Your task to perform on an android device: open app "Cash App" (install if not already installed) and enter user name: "submodules@gmail.com" and password: "heavenly" Image 0: 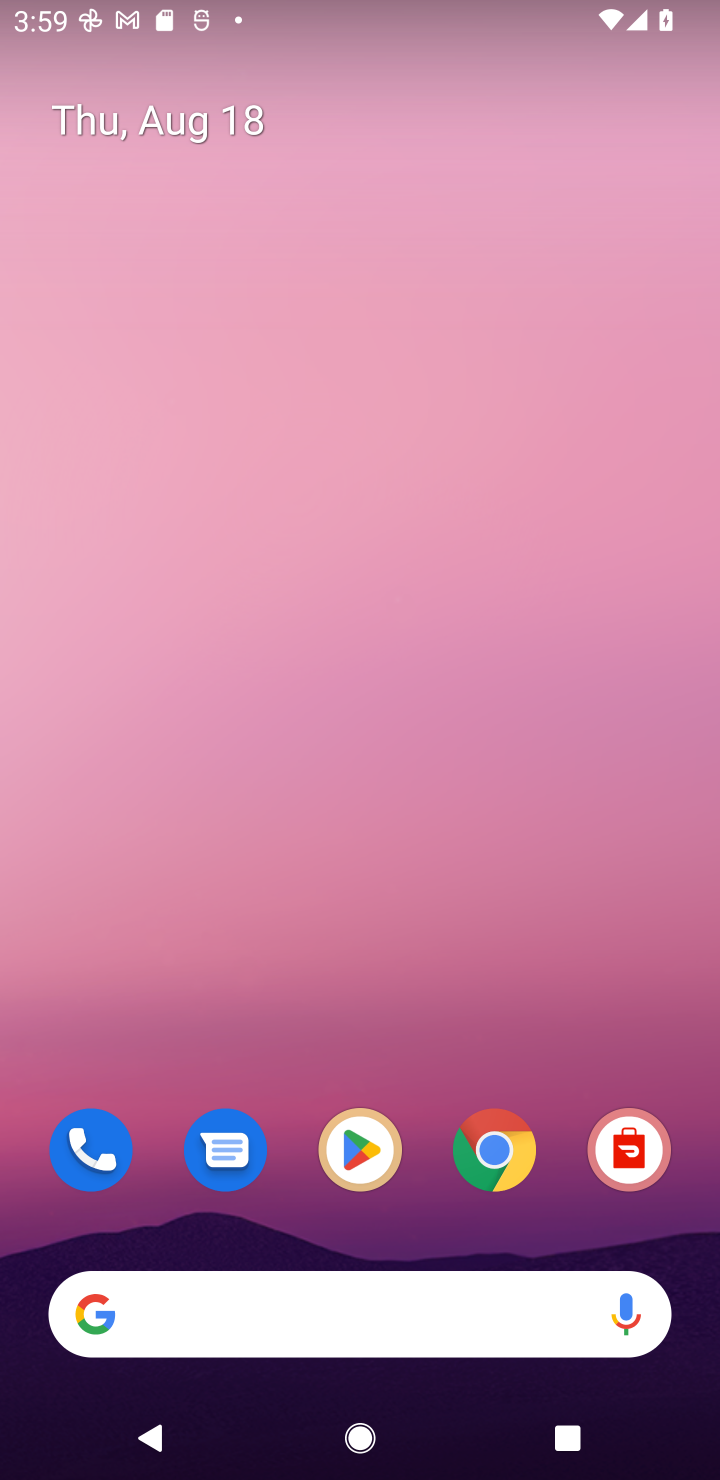
Step 0: click (365, 1147)
Your task to perform on an android device: open app "Cash App" (install if not already installed) and enter user name: "submodules@gmail.com" and password: "heavenly" Image 1: 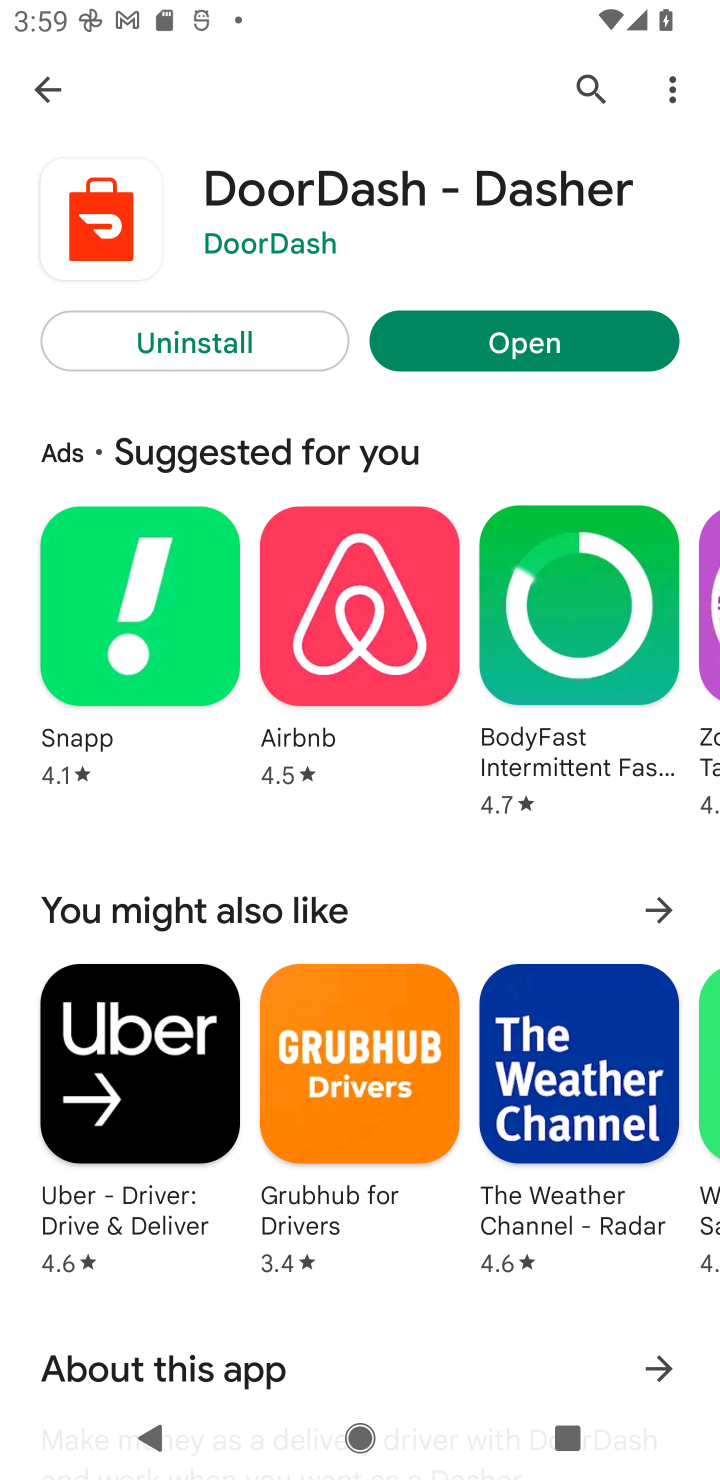
Step 1: click (584, 83)
Your task to perform on an android device: open app "Cash App" (install if not already installed) and enter user name: "submodules@gmail.com" and password: "heavenly" Image 2: 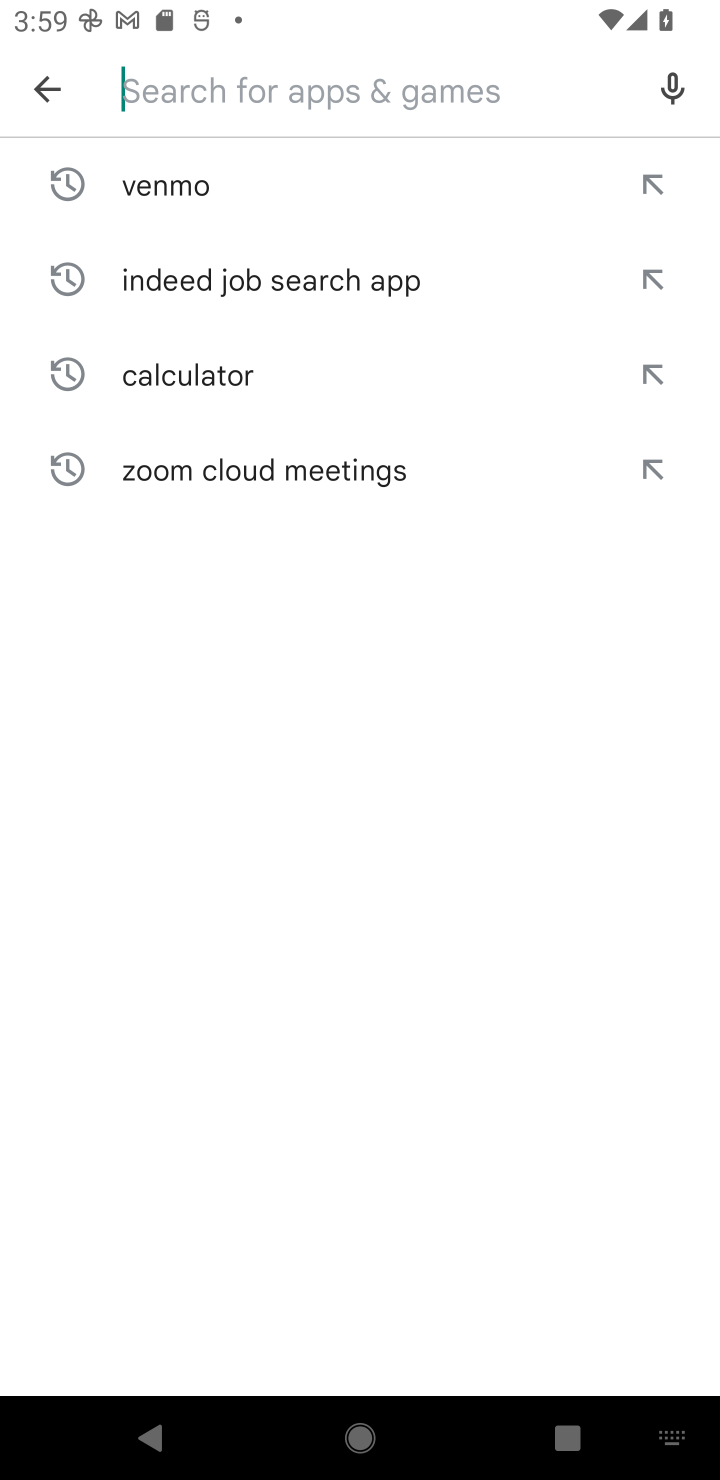
Step 2: type "Cash App"
Your task to perform on an android device: open app "Cash App" (install if not already installed) and enter user name: "submodules@gmail.com" and password: "heavenly" Image 3: 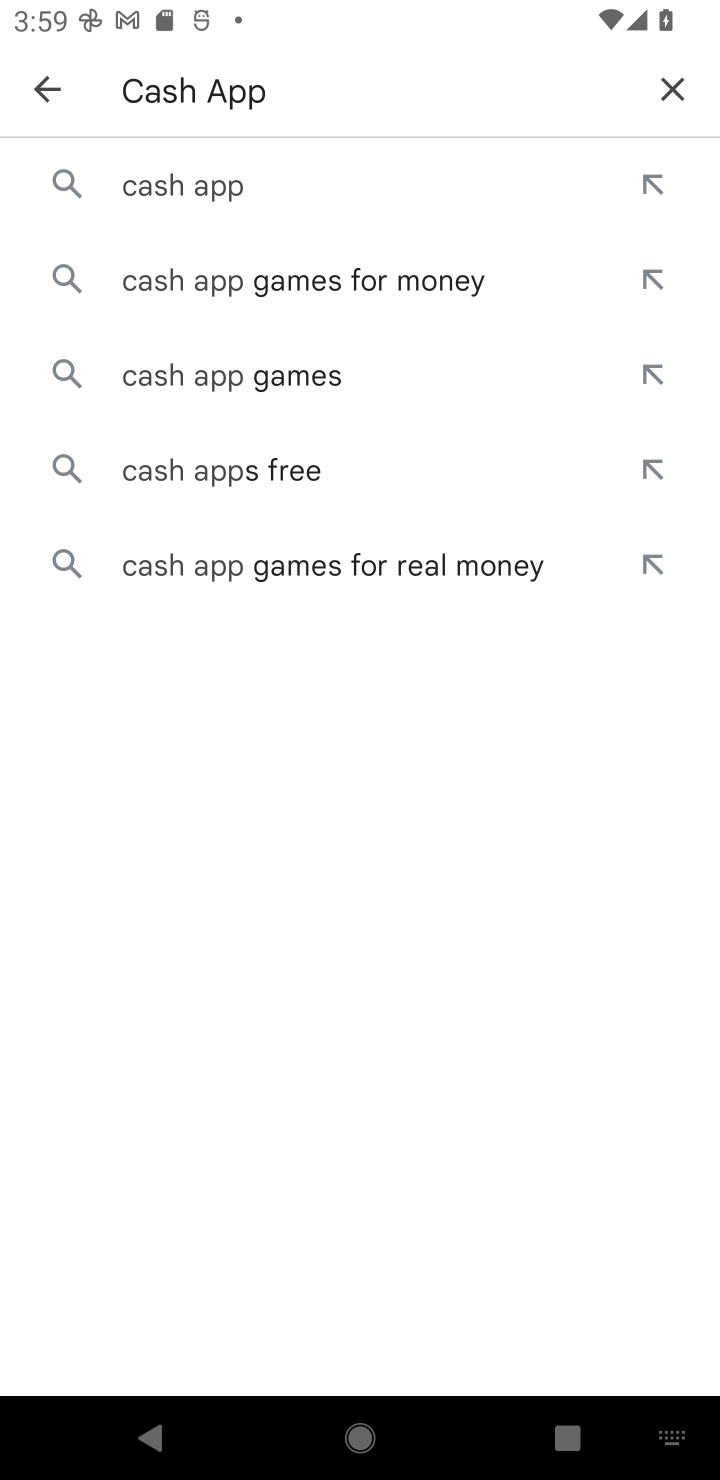
Step 3: click (166, 170)
Your task to perform on an android device: open app "Cash App" (install if not already installed) and enter user name: "submodules@gmail.com" and password: "heavenly" Image 4: 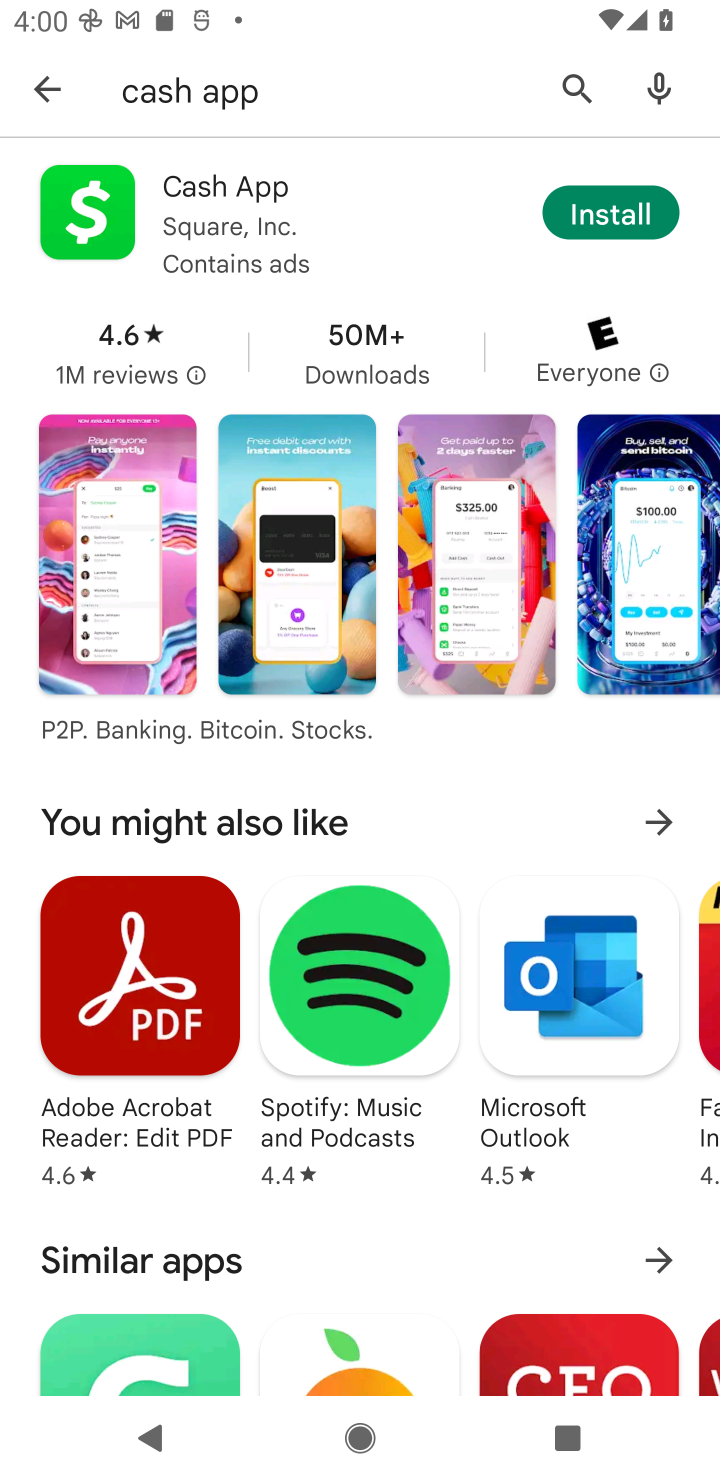
Step 4: click (613, 208)
Your task to perform on an android device: open app "Cash App" (install if not already installed) and enter user name: "submodules@gmail.com" and password: "heavenly" Image 5: 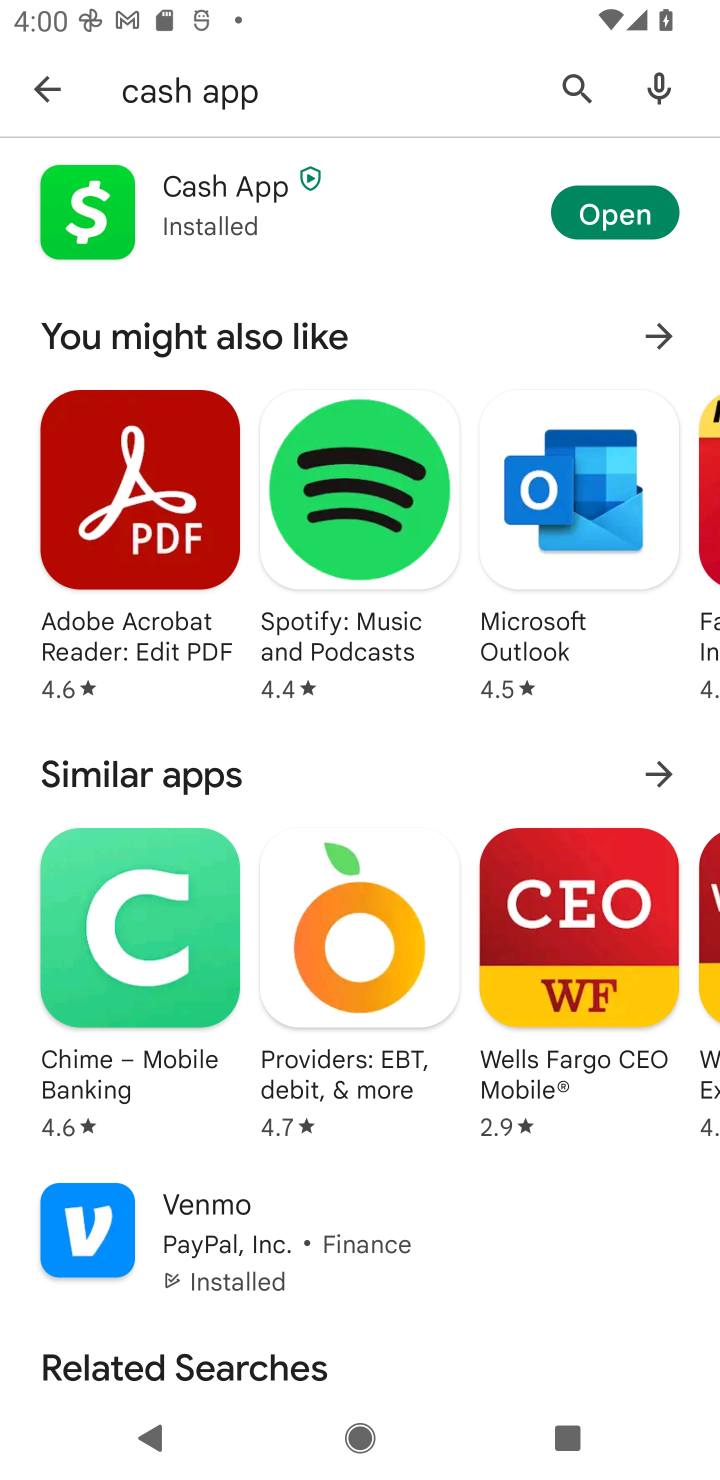
Step 5: click (612, 216)
Your task to perform on an android device: open app "Cash App" (install if not already installed) and enter user name: "submodules@gmail.com" and password: "heavenly" Image 6: 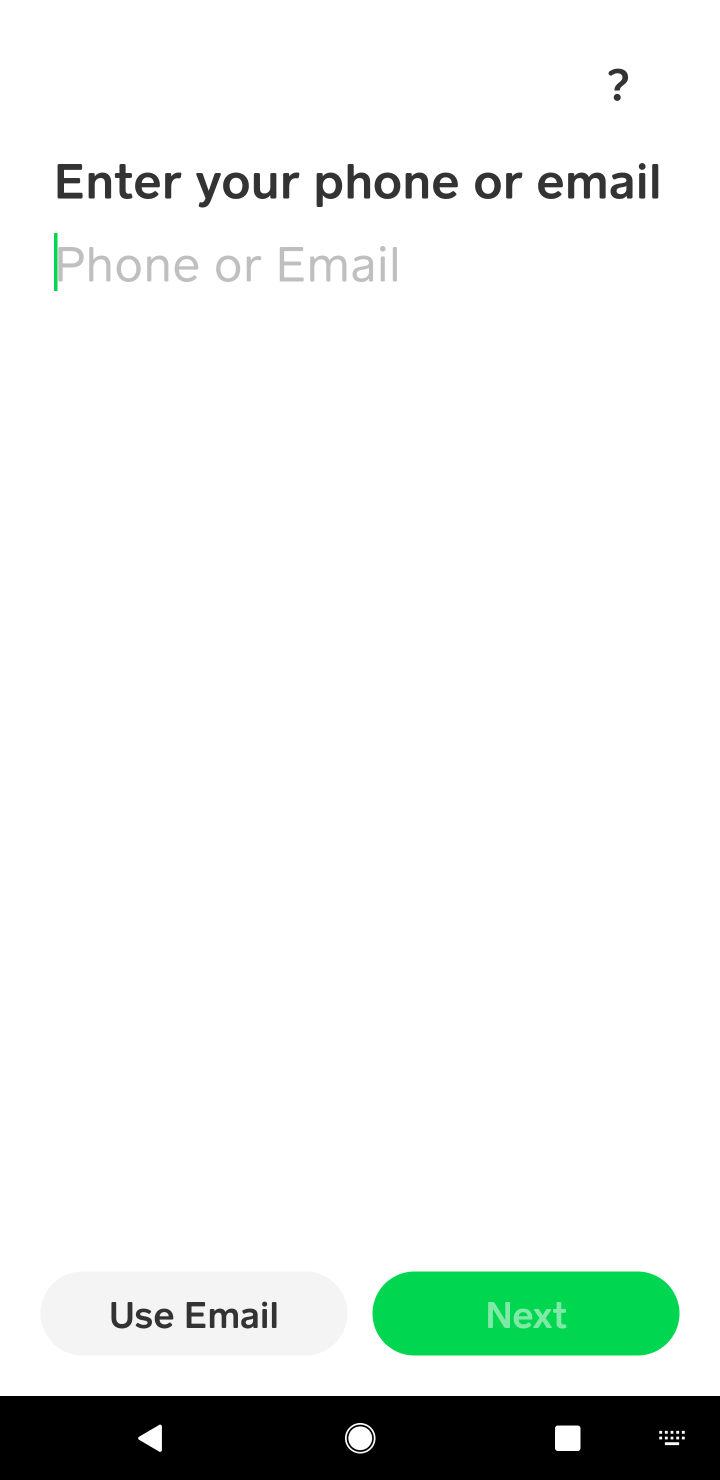
Step 6: type "submodules@gmail.com"
Your task to perform on an android device: open app "Cash App" (install if not already installed) and enter user name: "submodules@gmail.com" and password: "heavenly" Image 7: 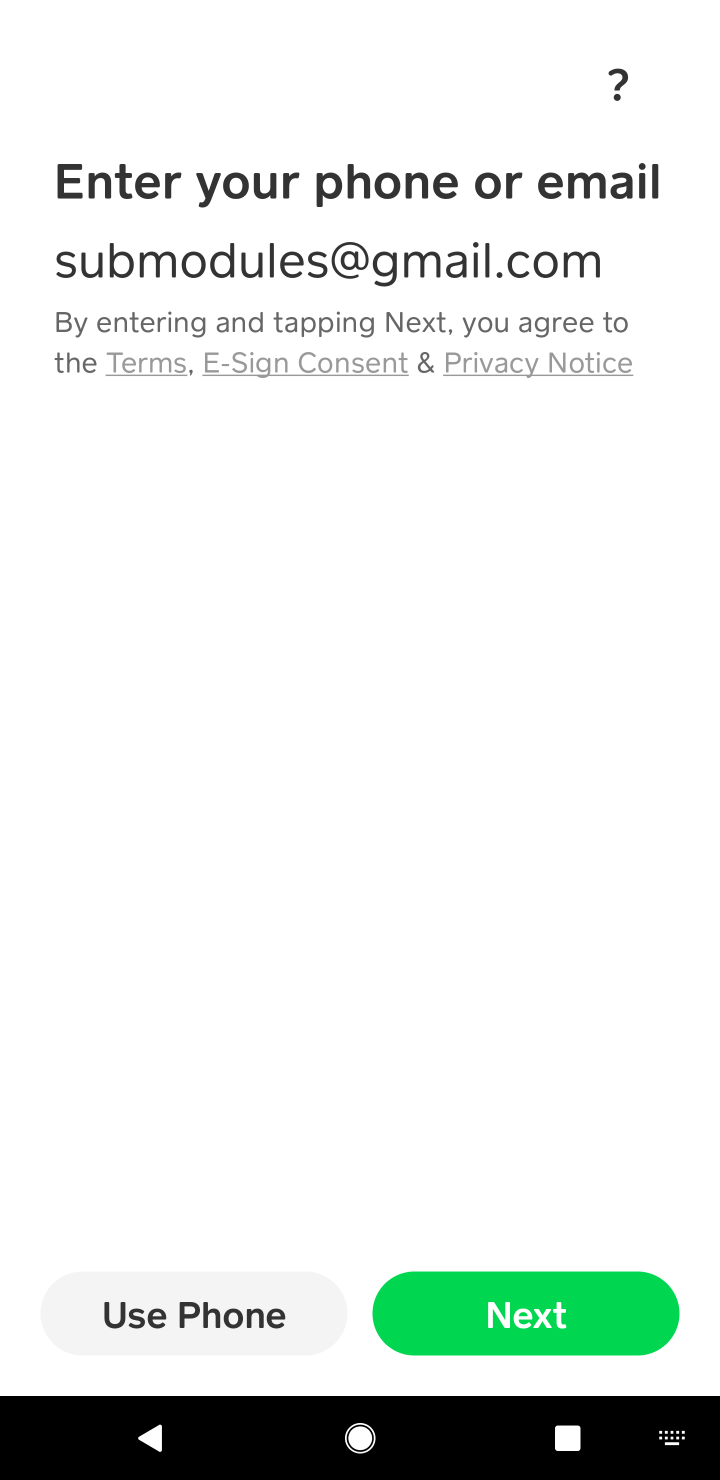
Step 7: click (530, 1313)
Your task to perform on an android device: open app "Cash App" (install if not already installed) and enter user name: "submodules@gmail.com" and password: "heavenly" Image 8: 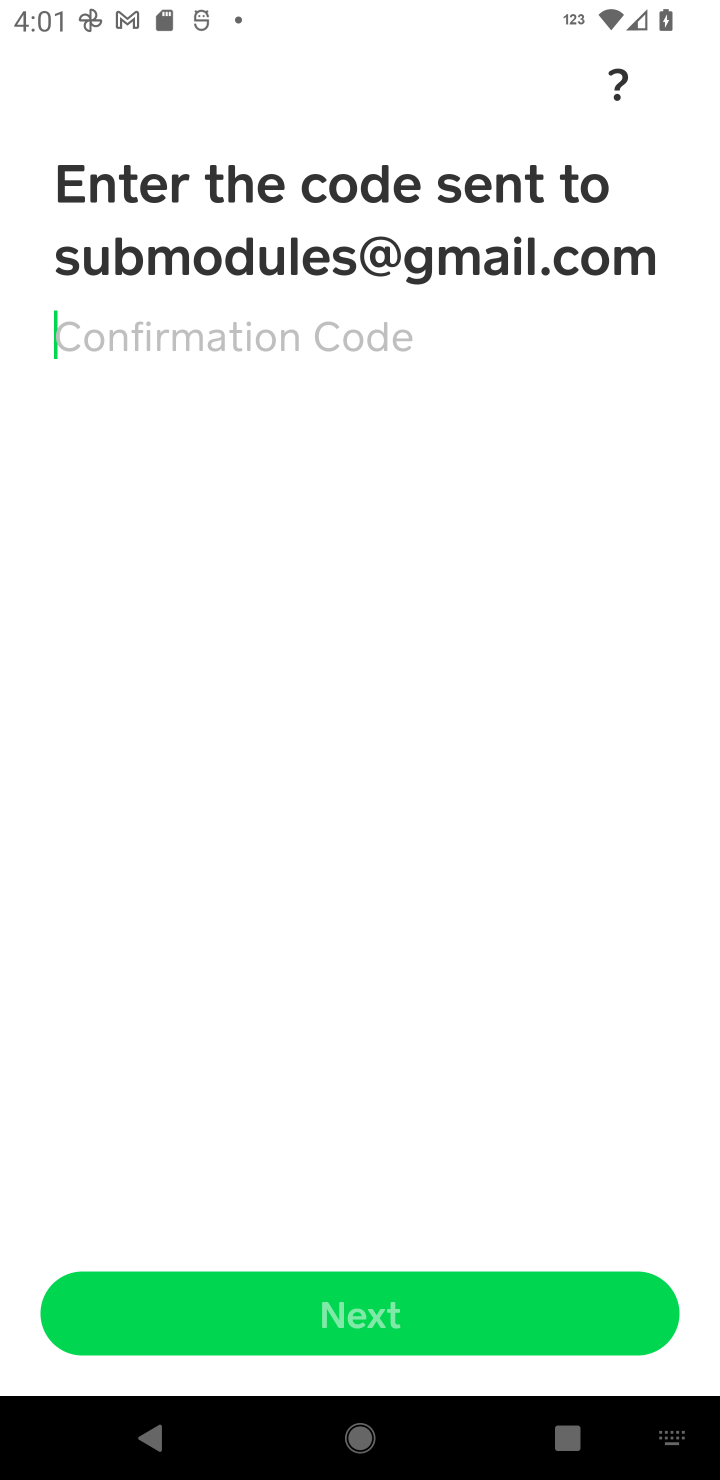
Step 8: type "heavenly"
Your task to perform on an android device: open app "Cash App" (install if not already installed) and enter user name: "submodules@gmail.com" and password: "heavenly" Image 9: 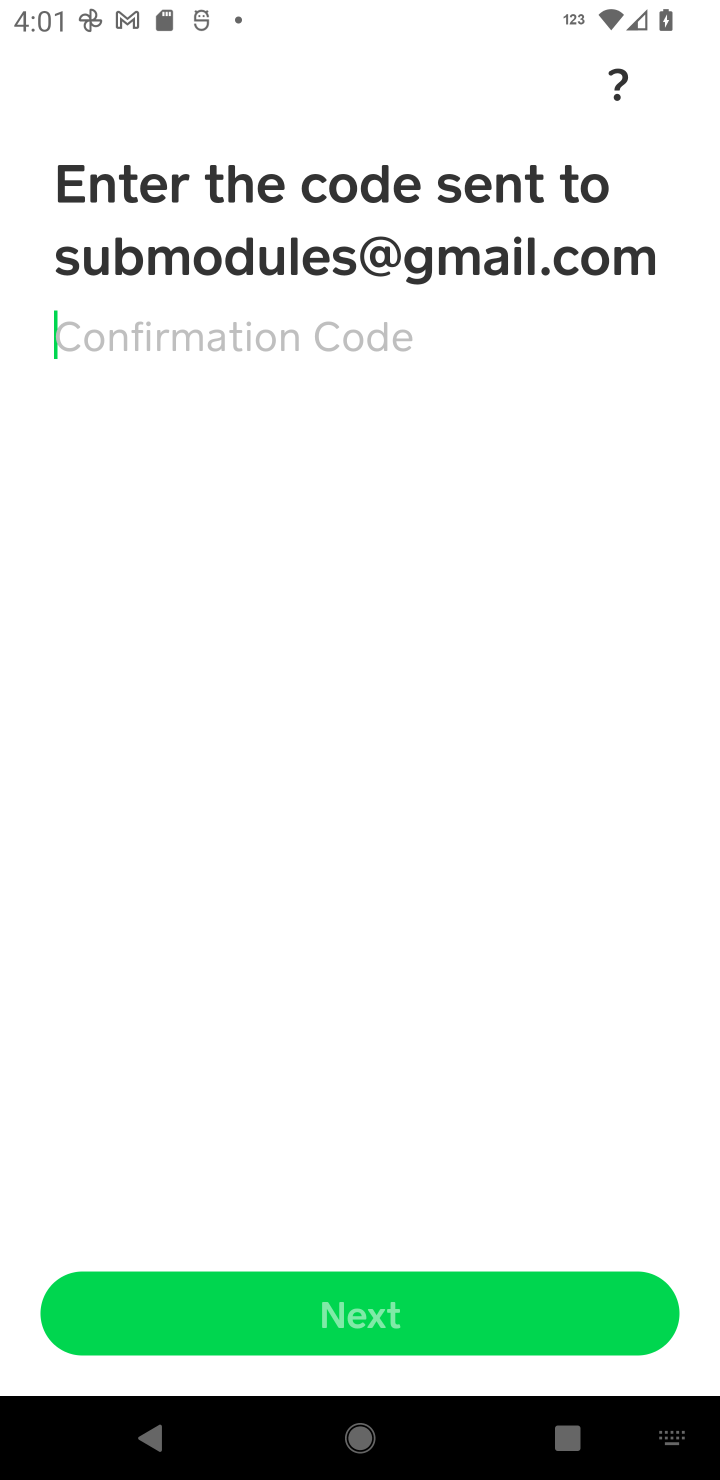
Step 9: task complete